Your task to perform on an android device: change the clock display to digital Image 0: 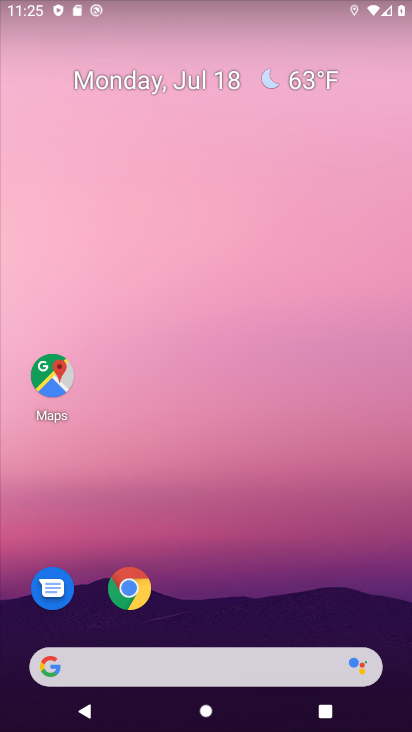
Step 0: drag from (246, 490) to (248, 12)
Your task to perform on an android device: change the clock display to digital Image 1: 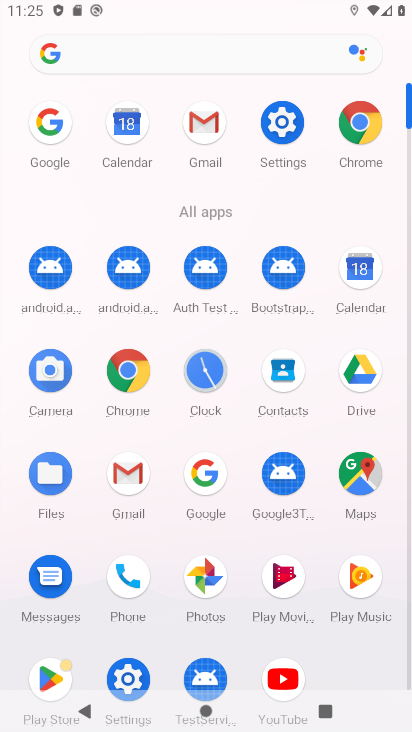
Step 1: click (207, 368)
Your task to perform on an android device: change the clock display to digital Image 2: 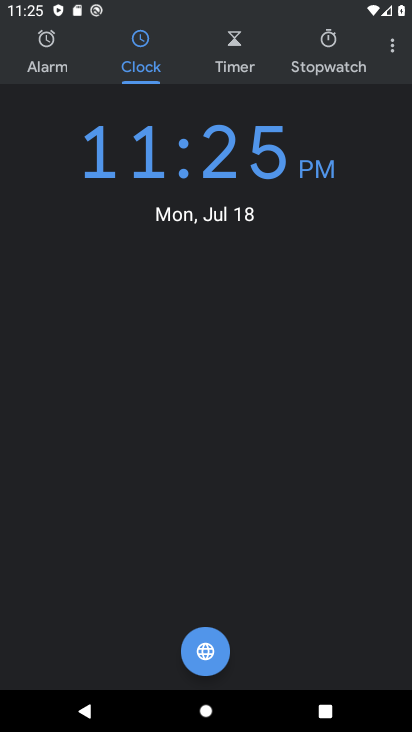
Step 2: click (393, 36)
Your task to perform on an android device: change the clock display to digital Image 3: 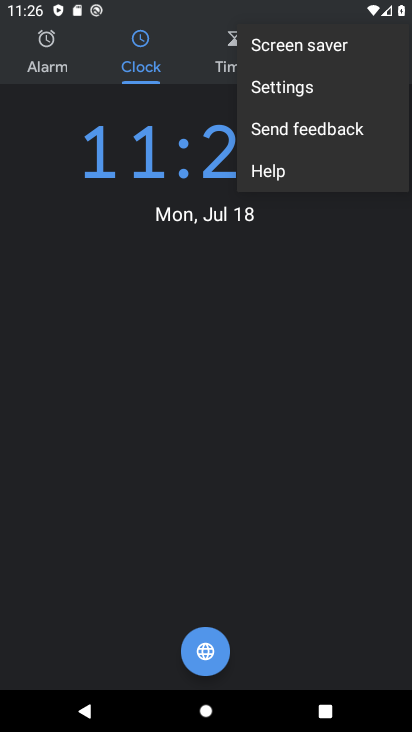
Step 3: click (265, 85)
Your task to perform on an android device: change the clock display to digital Image 4: 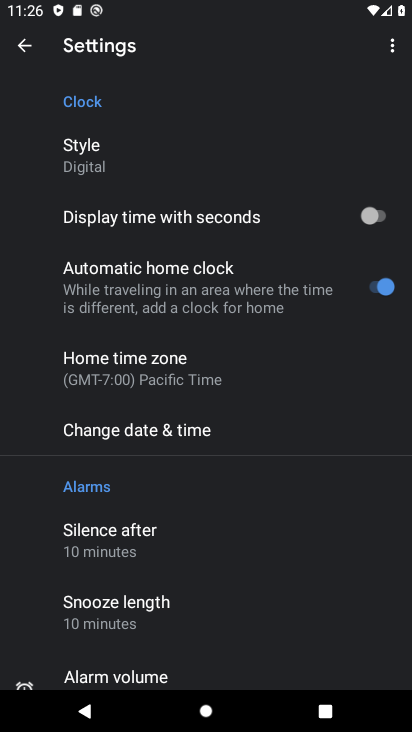
Step 4: task complete